Your task to perform on an android device: clear history in the chrome app Image 0: 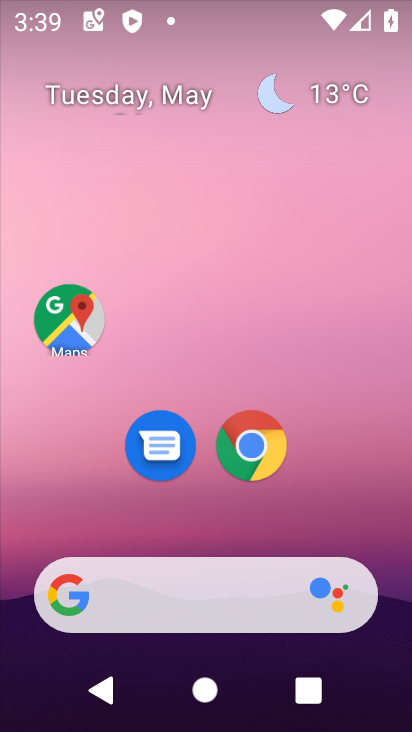
Step 0: press home button
Your task to perform on an android device: clear history in the chrome app Image 1: 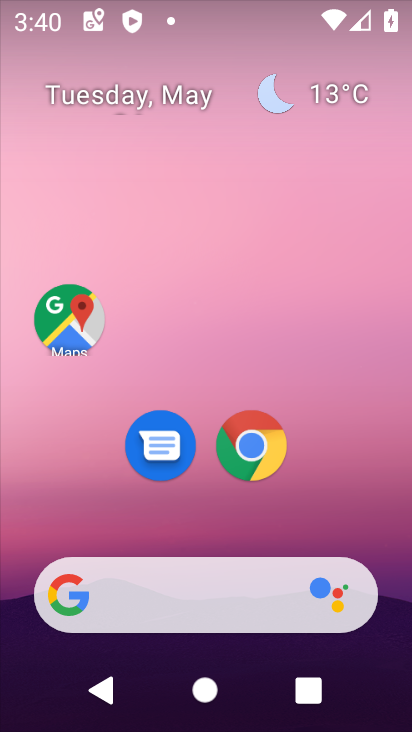
Step 1: click (248, 439)
Your task to perform on an android device: clear history in the chrome app Image 2: 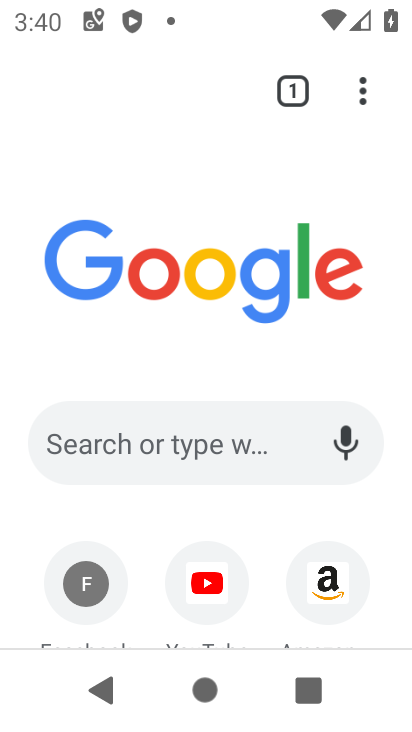
Step 2: click (357, 91)
Your task to perform on an android device: clear history in the chrome app Image 3: 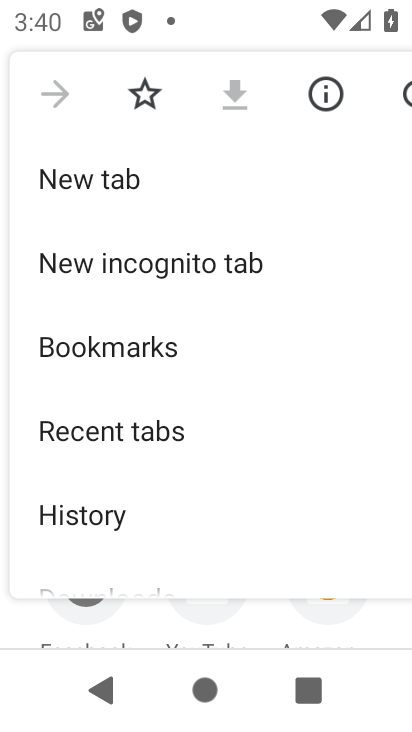
Step 3: click (145, 511)
Your task to perform on an android device: clear history in the chrome app Image 4: 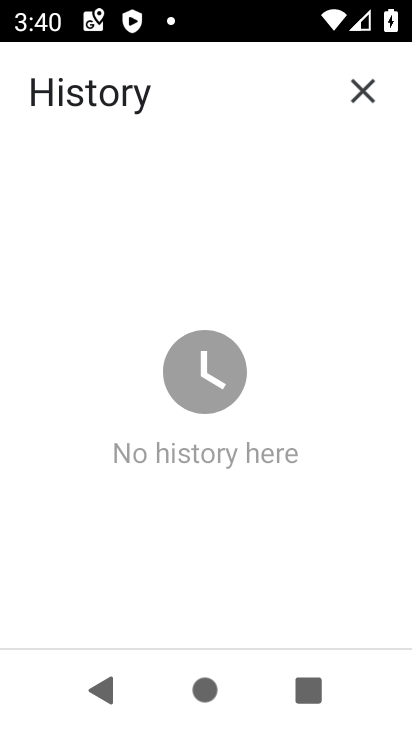
Step 4: task complete